Your task to perform on an android device: When is my next meeting? Image 0: 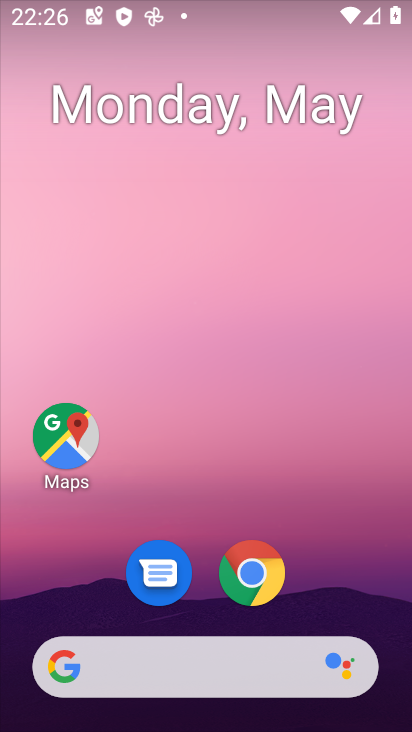
Step 0: drag from (395, 554) to (177, 64)
Your task to perform on an android device: When is my next meeting? Image 1: 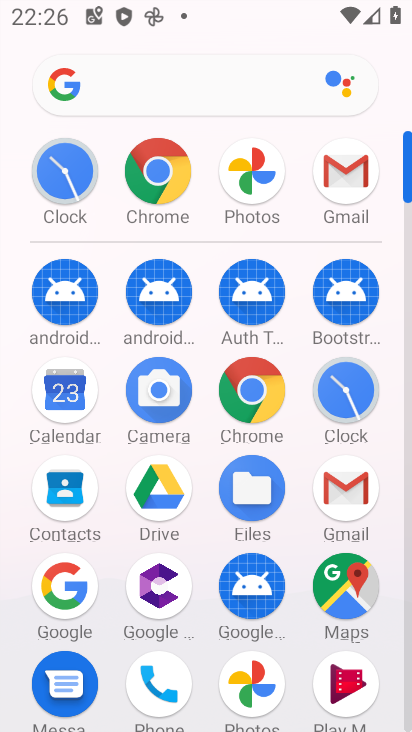
Step 1: click (88, 382)
Your task to perform on an android device: When is my next meeting? Image 2: 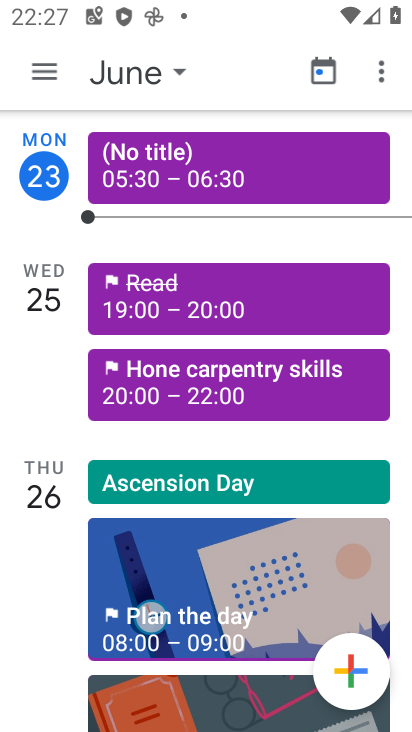
Step 2: task complete